Your task to perform on an android device: turn off smart reply in the gmail app Image 0: 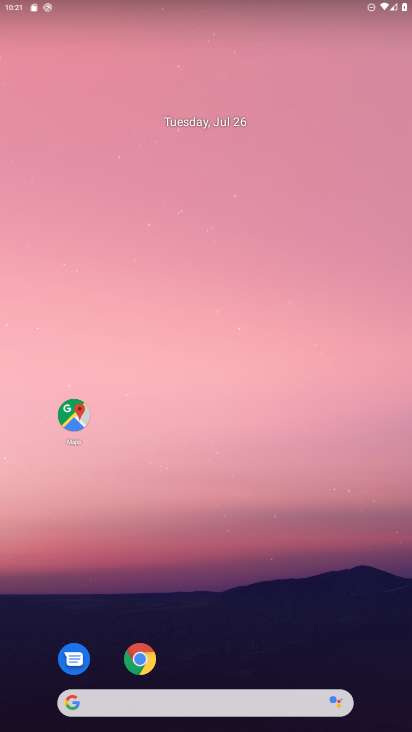
Step 0: drag from (388, 680) to (243, 8)
Your task to perform on an android device: turn off smart reply in the gmail app Image 1: 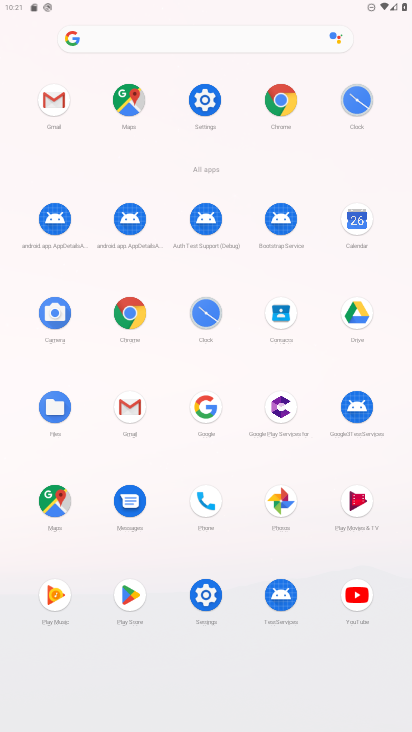
Step 1: click (124, 404)
Your task to perform on an android device: turn off smart reply in the gmail app Image 2: 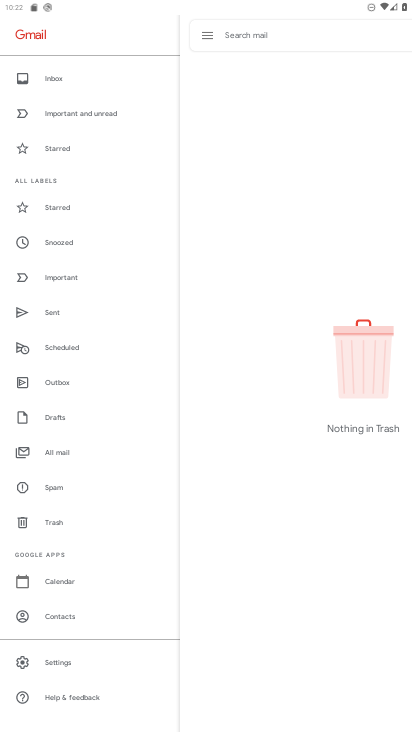
Step 2: click (44, 659)
Your task to perform on an android device: turn off smart reply in the gmail app Image 3: 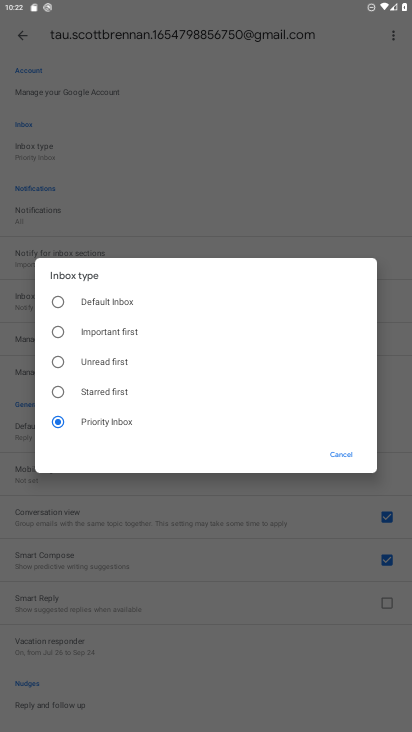
Step 3: click (159, 559)
Your task to perform on an android device: turn off smart reply in the gmail app Image 4: 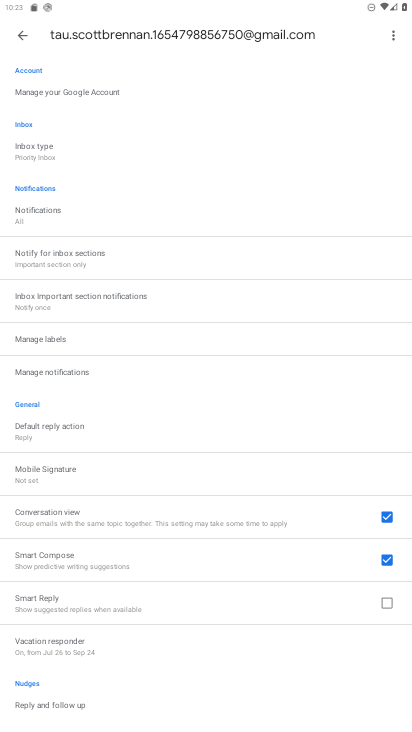
Step 4: task complete